Your task to perform on an android device: find which apps use the phone's location Image 0: 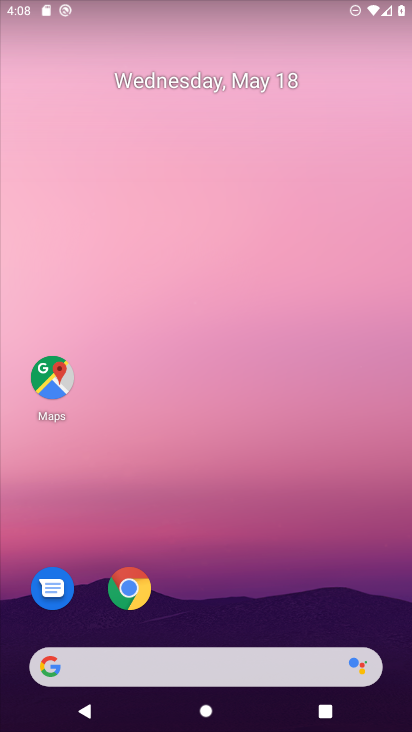
Step 0: drag from (263, 597) to (258, 130)
Your task to perform on an android device: find which apps use the phone's location Image 1: 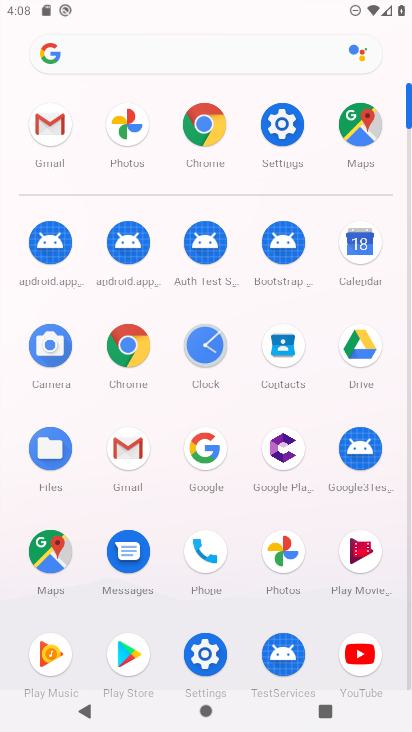
Step 1: click (286, 145)
Your task to perform on an android device: find which apps use the phone's location Image 2: 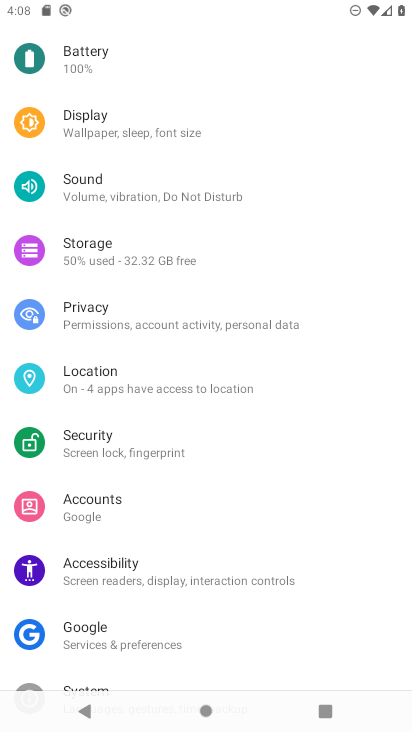
Step 2: drag from (218, 628) to (244, 320)
Your task to perform on an android device: find which apps use the phone's location Image 3: 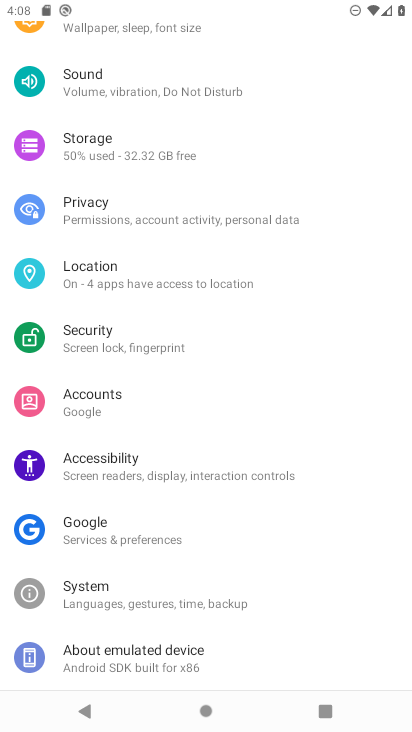
Step 3: click (227, 654)
Your task to perform on an android device: find which apps use the phone's location Image 4: 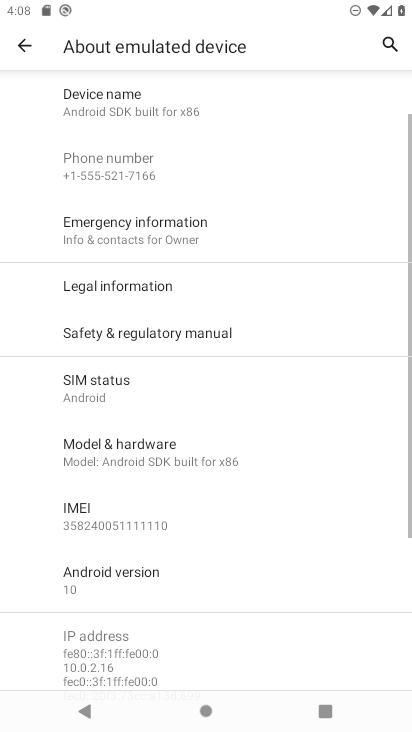
Step 4: task complete